Your task to perform on an android device: read, delete, or share a saved page in the chrome app Image 0: 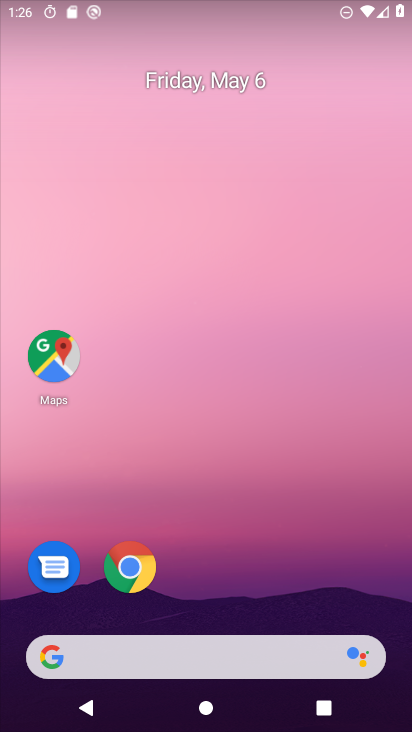
Step 0: drag from (253, 690) to (325, 207)
Your task to perform on an android device: read, delete, or share a saved page in the chrome app Image 1: 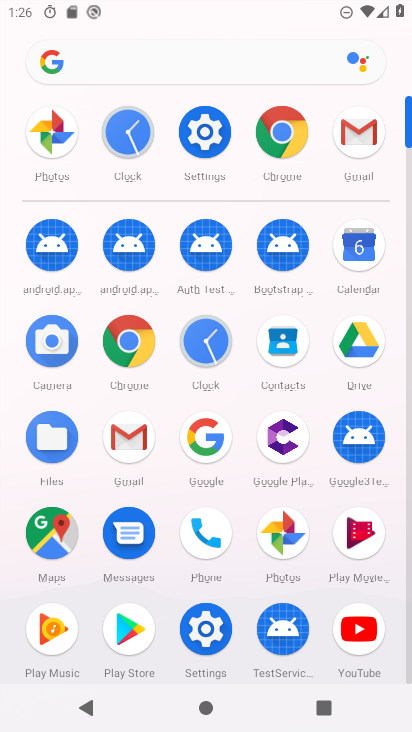
Step 1: click (281, 142)
Your task to perform on an android device: read, delete, or share a saved page in the chrome app Image 2: 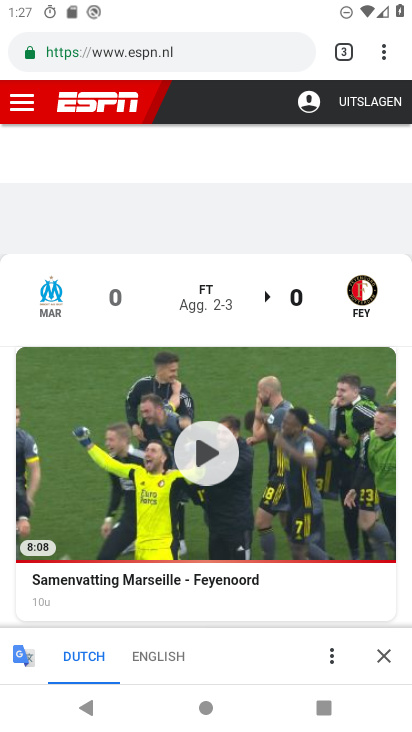
Step 2: click (396, 59)
Your task to perform on an android device: read, delete, or share a saved page in the chrome app Image 3: 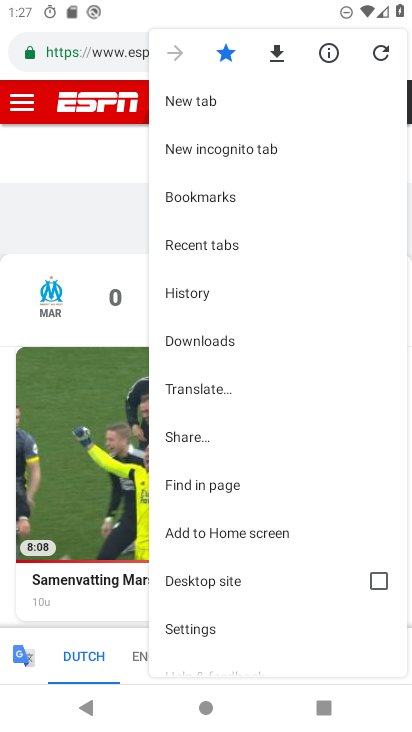
Step 3: click (216, 423)
Your task to perform on an android device: read, delete, or share a saved page in the chrome app Image 4: 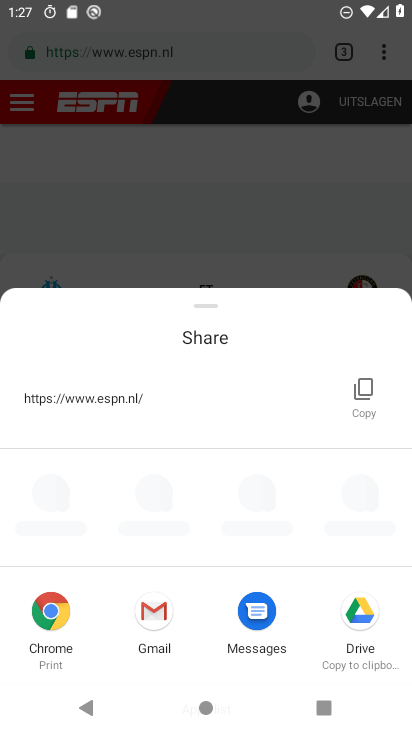
Step 4: task complete